Your task to perform on an android device: add a contact in the contacts app Image 0: 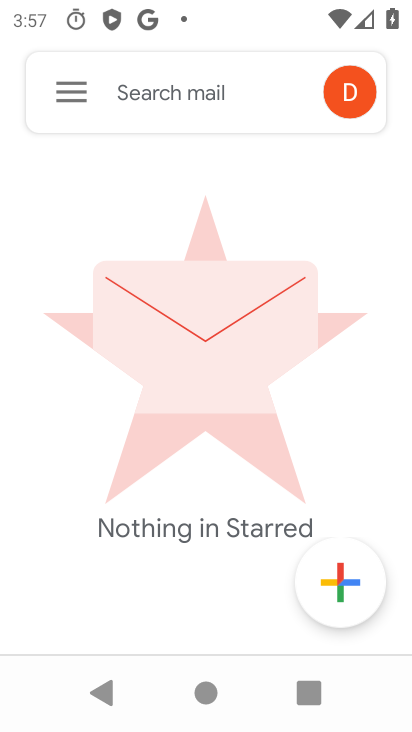
Step 0: press home button
Your task to perform on an android device: add a contact in the contacts app Image 1: 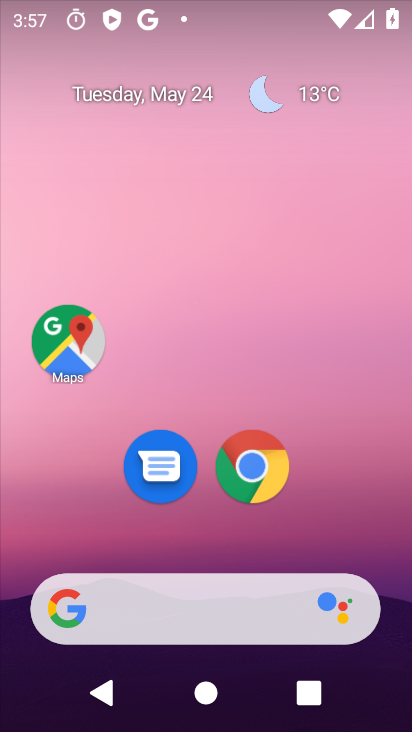
Step 1: drag from (341, 525) to (290, 84)
Your task to perform on an android device: add a contact in the contacts app Image 2: 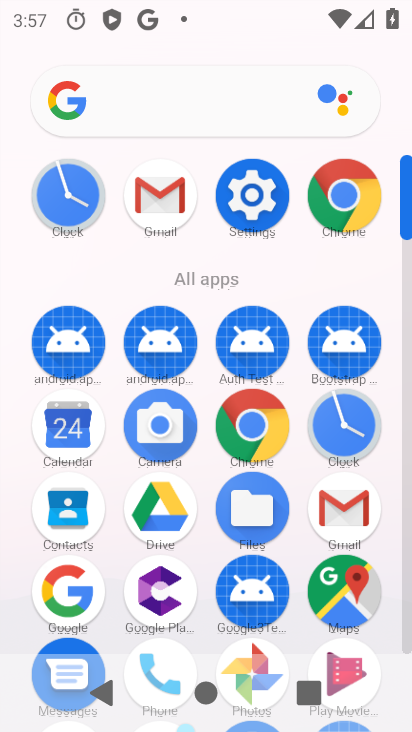
Step 2: click (64, 507)
Your task to perform on an android device: add a contact in the contacts app Image 3: 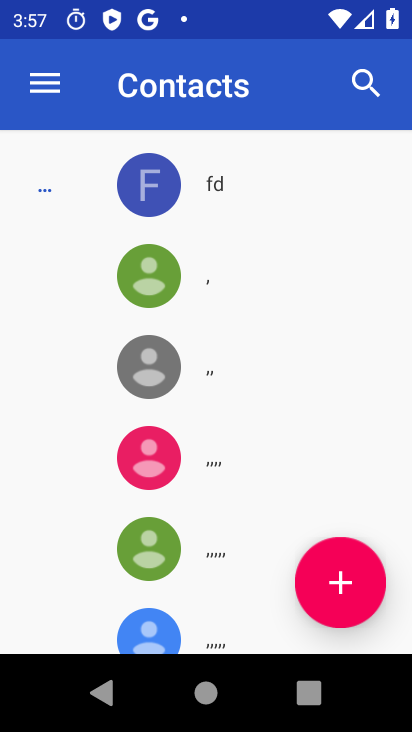
Step 3: click (356, 570)
Your task to perform on an android device: add a contact in the contacts app Image 4: 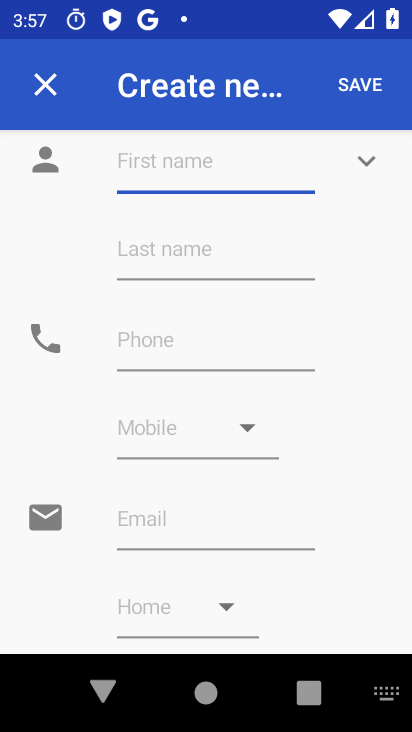
Step 4: click (212, 167)
Your task to perform on an android device: add a contact in the contacts app Image 5: 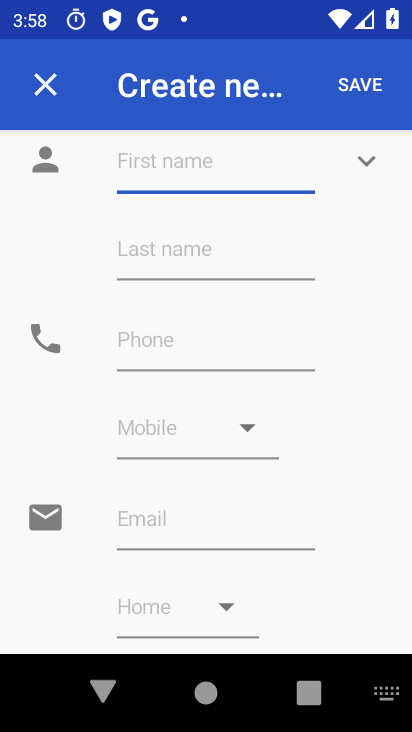
Step 5: type "style"
Your task to perform on an android device: add a contact in the contacts app Image 6: 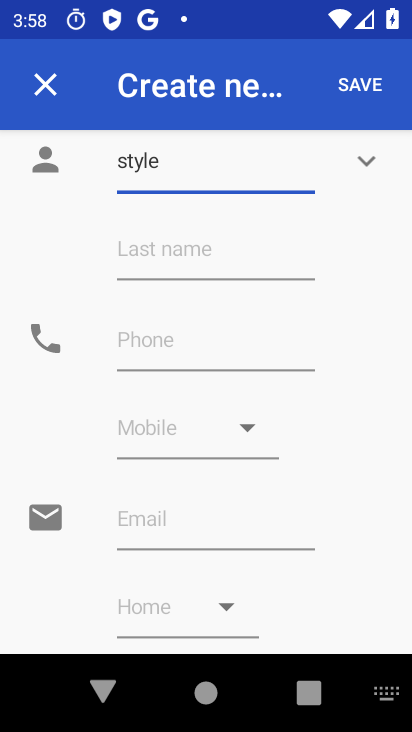
Step 6: click (357, 77)
Your task to perform on an android device: add a contact in the contacts app Image 7: 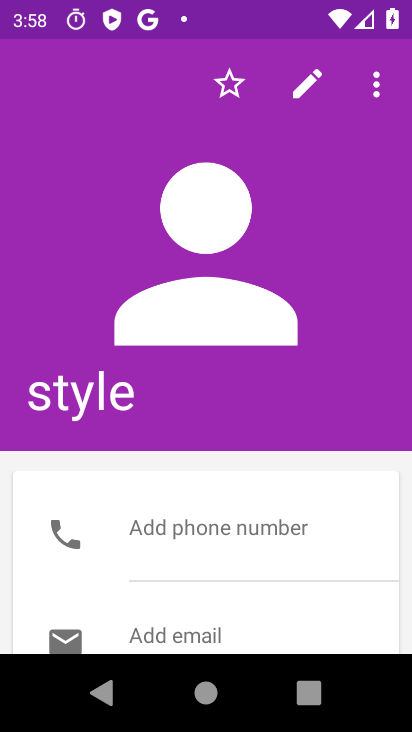
Step 7: task complete